Your task to perform on an android device: set an alarm Image 0: 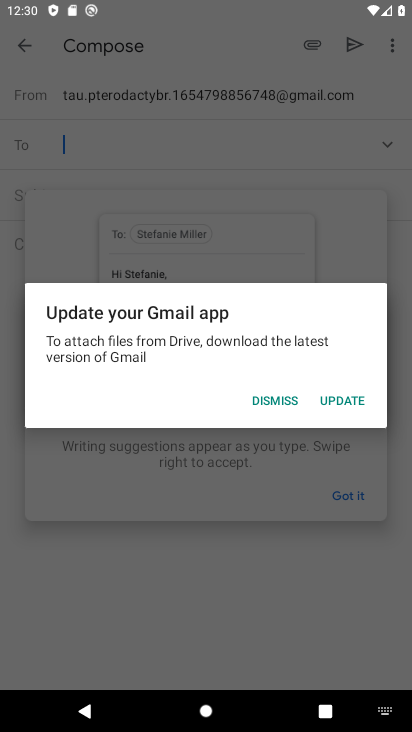
Step 0: press home button
Your task to perform on an android device: set an alarm Image 1: 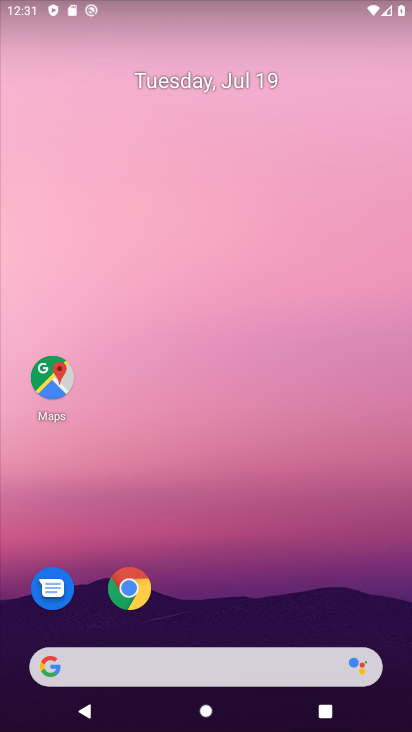
Step 1: drag from (206, 656) to (196, 217)
Your task to perform on an android device: set an alarm Image 2: 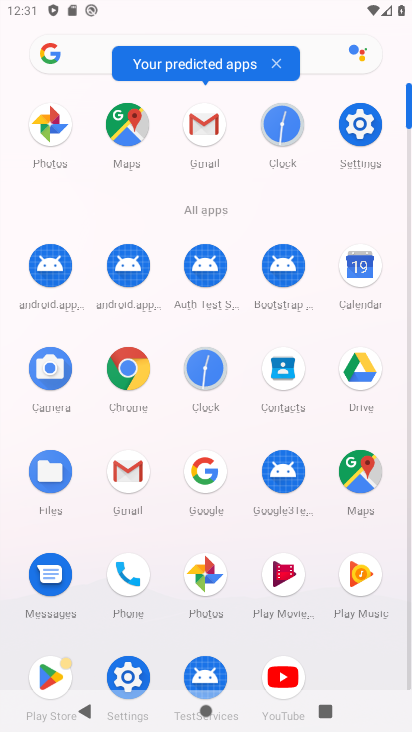
Step 2: click (276, 128)
Your task to perform on an android device: set an alarm Image 3: 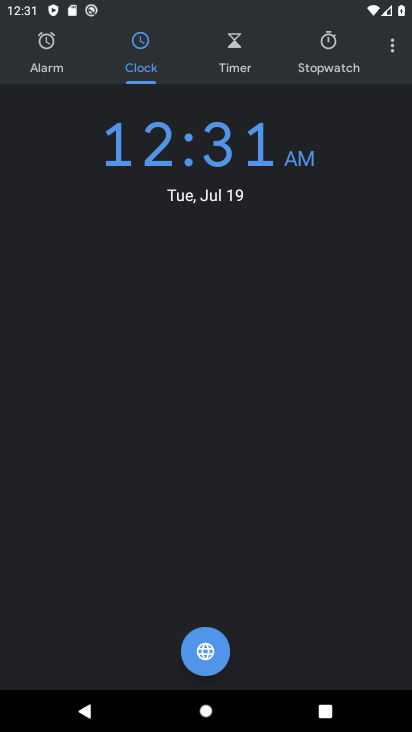
Step 3: click (50, 49)
Your task to perform on an android device: set an alarm Image 4: 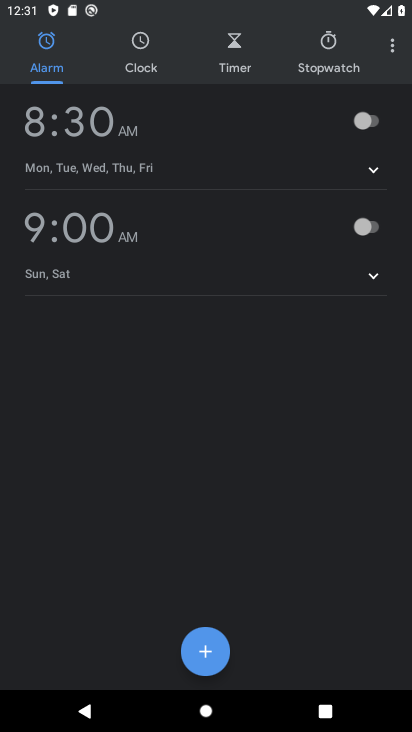
Step 4: click (202, 659)
Your task to perform on an android device: set an alarm Image 5: 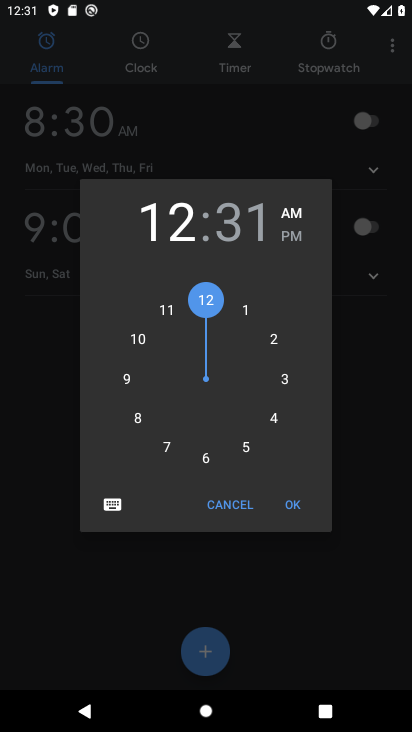
Step 5: click (213, 453)
Your task to perform on an android device: set an alarm Image 6: 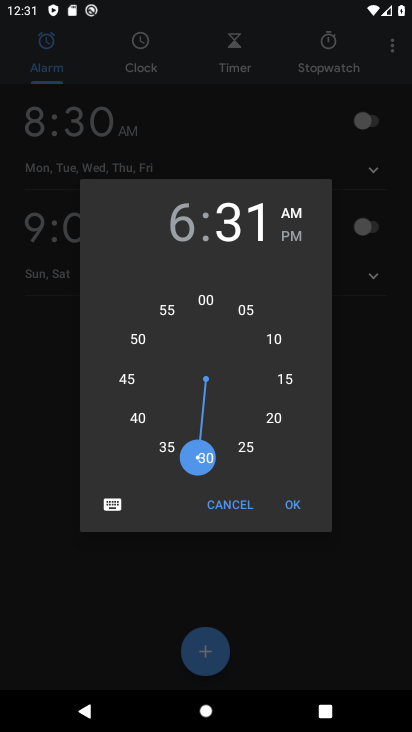
Step 6: click (200, 298)
Your task to perform on an android device: set an alarm Image 7: 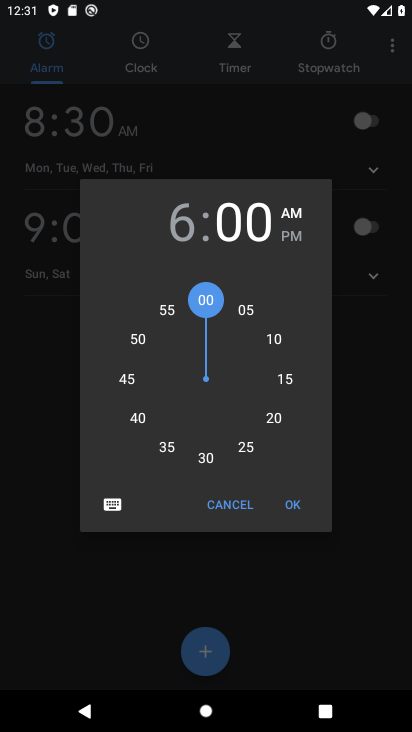
Step 7: click (294, 503)
Your task to perform on an android device: set an alarm Image 8: 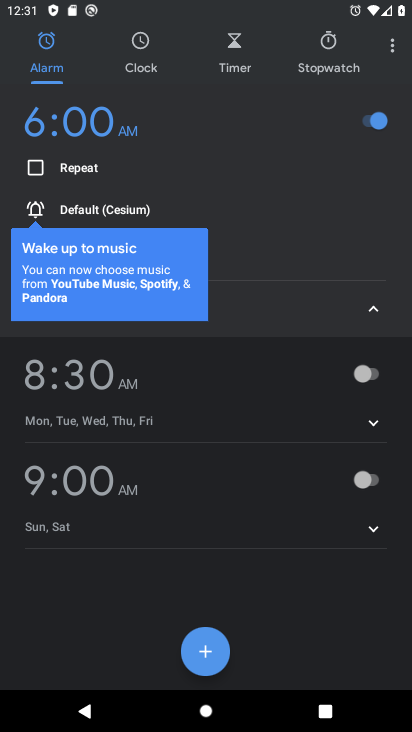
Step 8: task complete